Your task to perform on an android device: Go to ESPN.com Image 0: 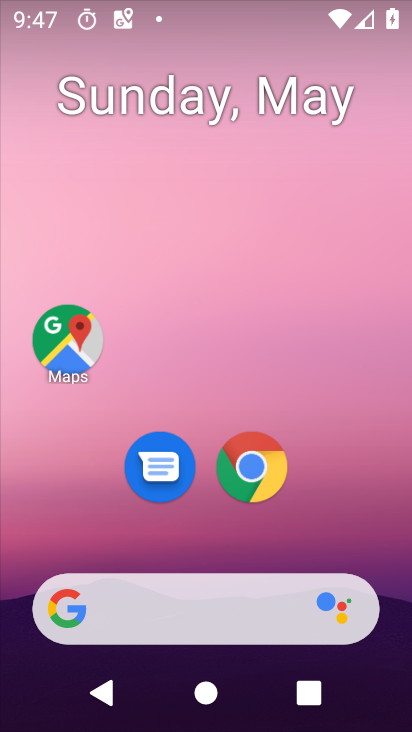
Step 0: click (246, 483)
Your task to perform on an android device: Go to ESPN.com Image 1: 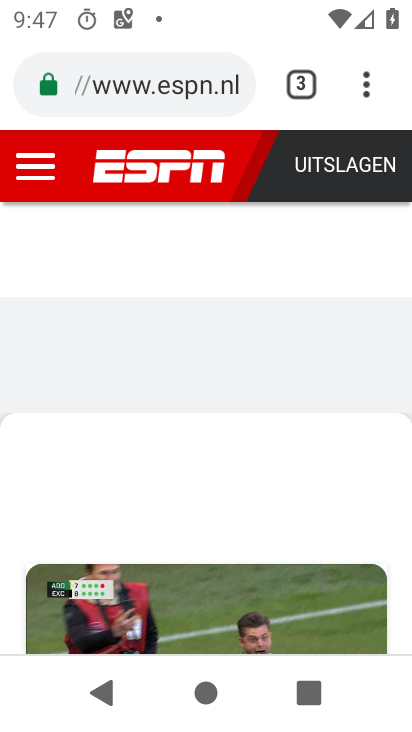
Step 1: task complete